Your task to perform on an android device: Open calendar and show me the second week of next month Image 0: 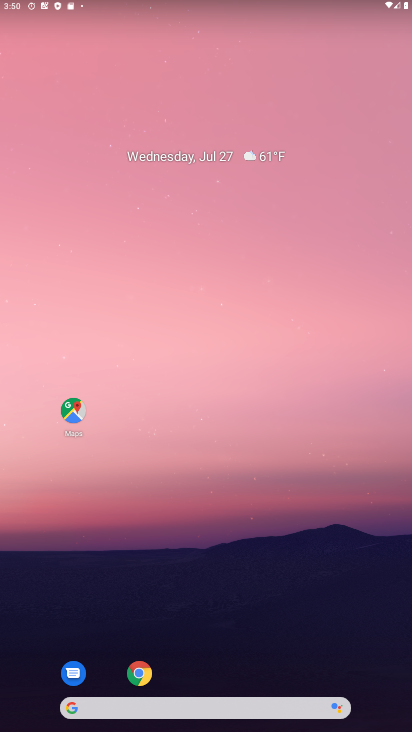
Step 0: drag from (115, 375) to (194, 20)
Your task to perform on an android device: Open calendar and show me the second week of next month Image 1: 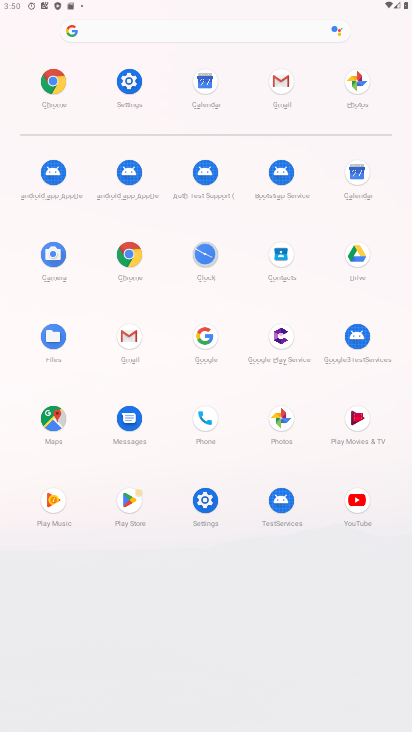
Step 1: click (357, 170)
Your task to perform on an android device: Open calendar and show me the second week of next month Image 2: 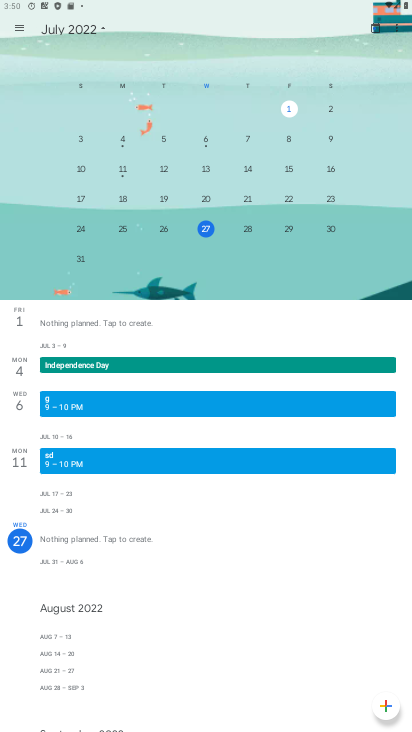
Step 2: drag from (374, 178) to (3, 292)
Your task to perform on an android device: Open calendar and show me the second week of next month Image 3: 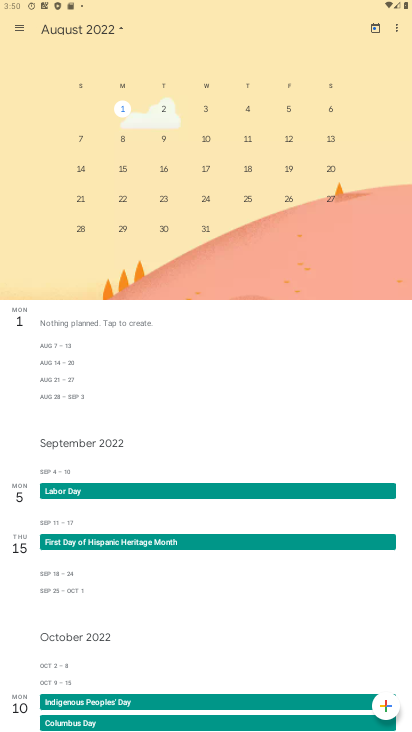
Step 3: click (122, 142)
Your task to perform on an android device: Open calendar and show me the second week of next month Image 4: 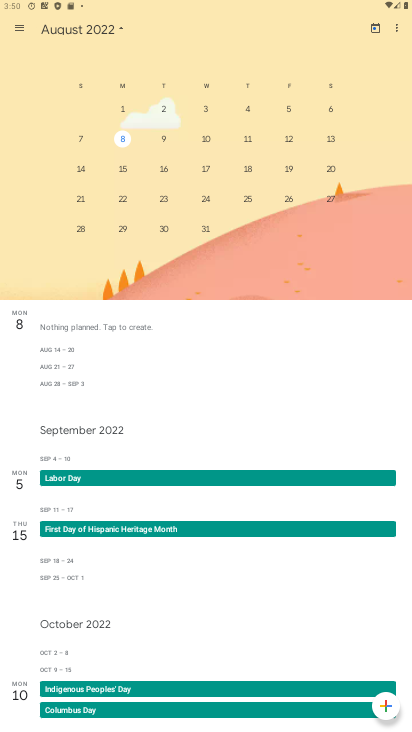
Step 4: task complete